Your task to perform on an android device: Toggle the flashlight Image 0: 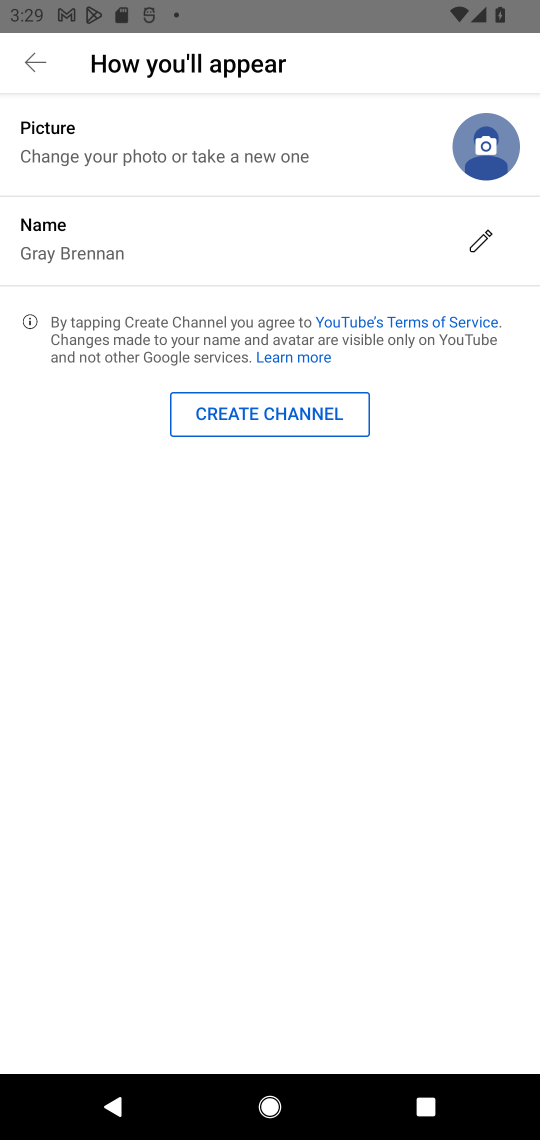
Step 0: press home button
Your task to perform on an android device: Toggle the flashlight Image 1: 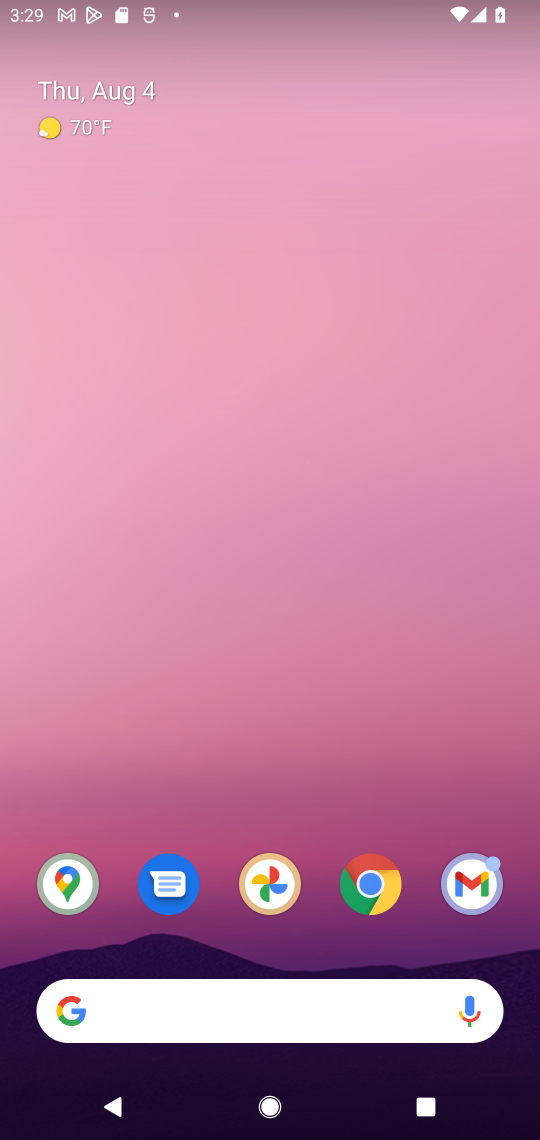
Step 1: drag from (327, 958) to (319, 174)
Your task to perform on an android device: Toggle the flashlight Image 2: 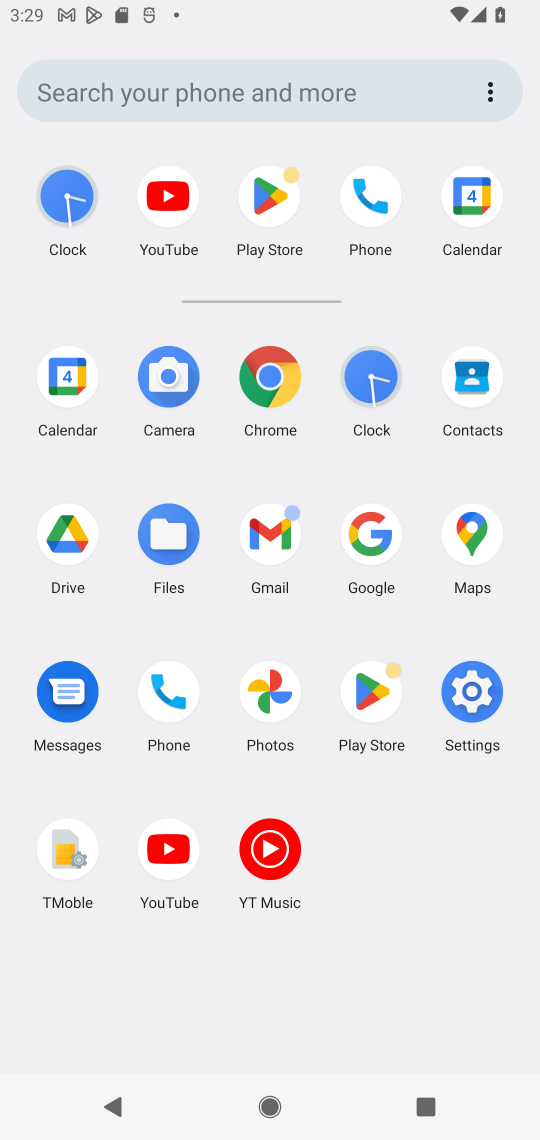
Step 2: click (467, 725)
Your task to perform on an android device: Toggle the flashlight Image 3: 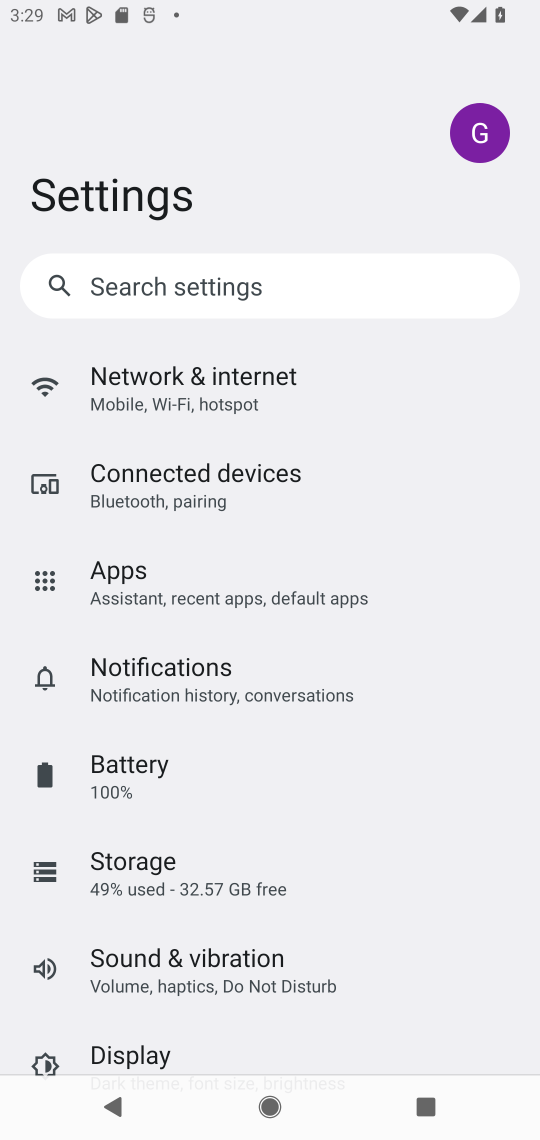
Step 3: task complete